Your task to perform on an android device: Go to battery settings Image 0: 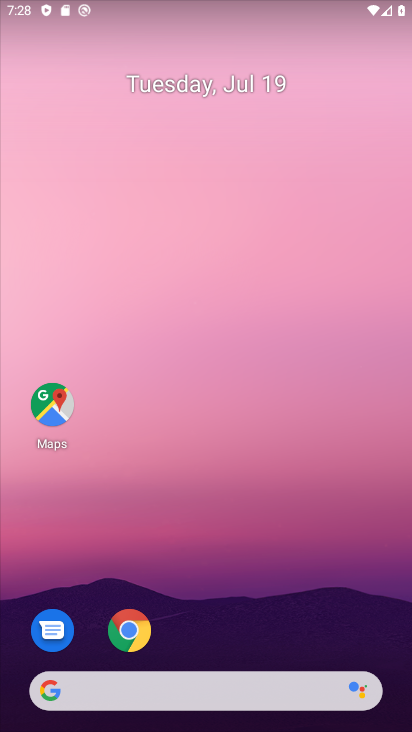
Step 0: drag from (305, 649) to (285, 266)
Your task to perform on an android device: Go to battery settings Image 1: 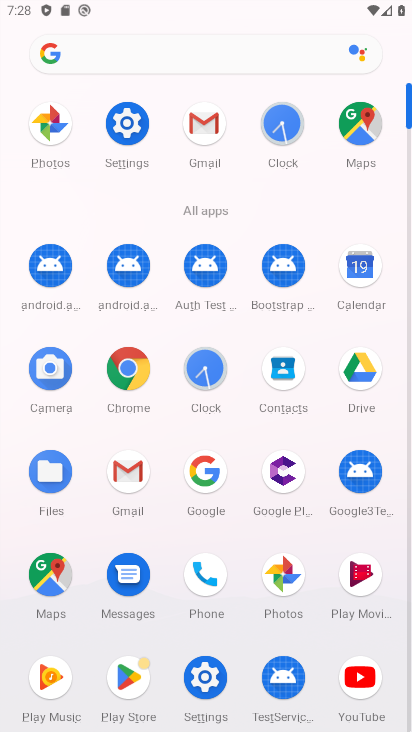
Step 1: click (201, 671)
Your task to perform on an android device: Go to battery settings Image 2: 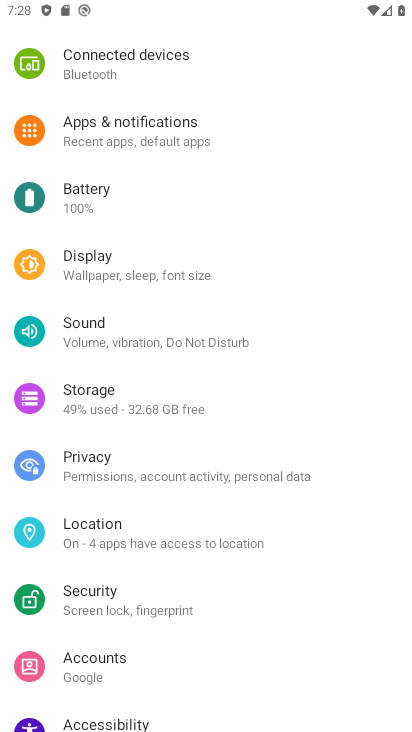
Step 2: click (121, 201)
Your task to perform on an android device: Go to battery settings Image 3: 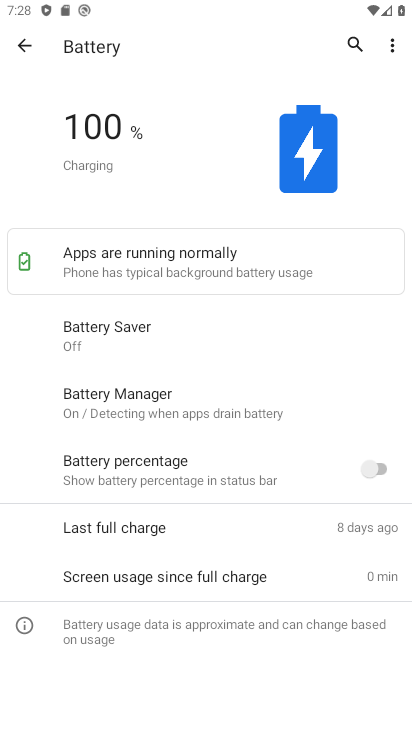
Step 3: task complete